Your task to perform on an android device: Go to privacy settings Image 0: 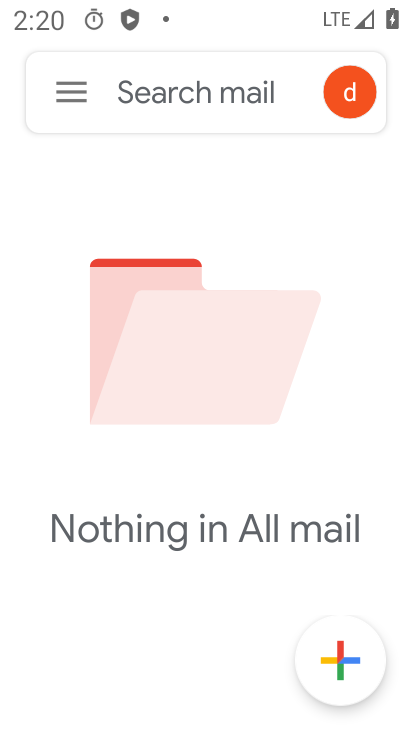
Step 0: press home button
Your task to perform on an android device: Go to privacy settings Image 1: 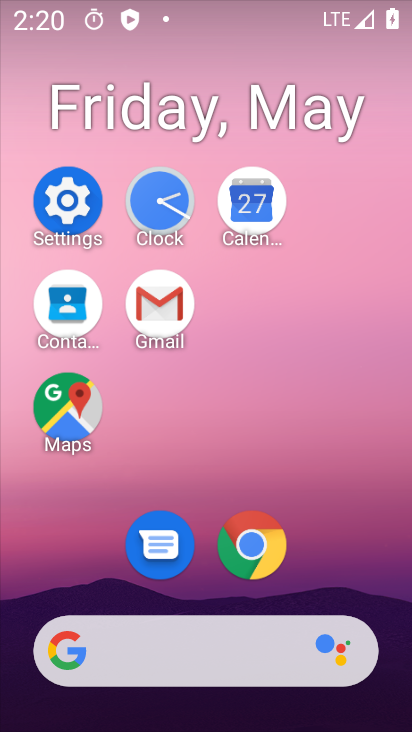
Step 1: click (88, 210)
Your task to perform on an android device: Go to privacy settings Image 2: 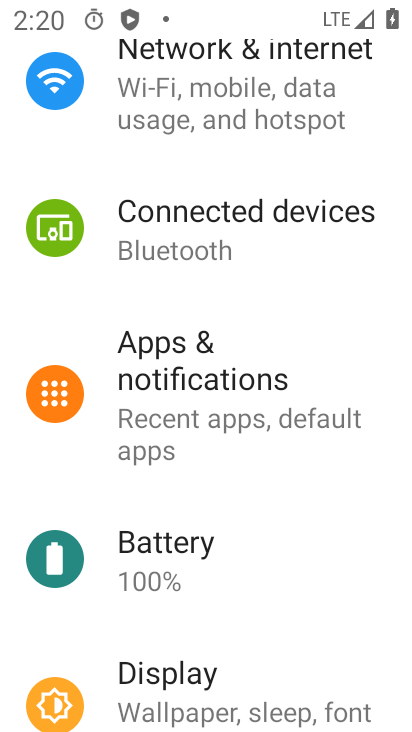
Step 2: drag from (343, 602) to (260, 165)
Your task to perform on an android device: Go to privacy settings Image 3: 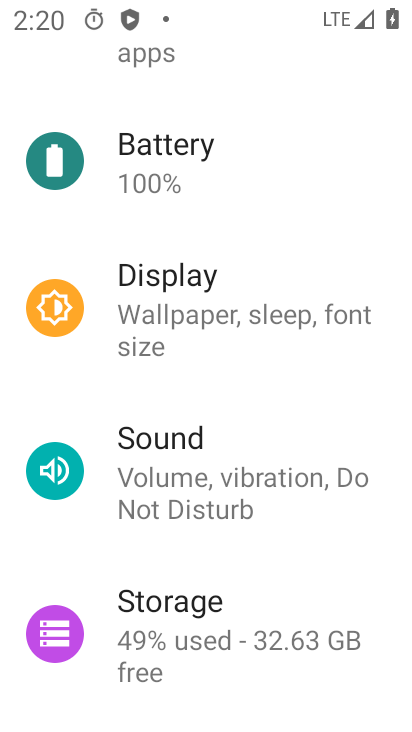
Step 3: drag from (306, 553) to (296, 108)
Your task to perform on an android device: Go to privacy settings Image 4: 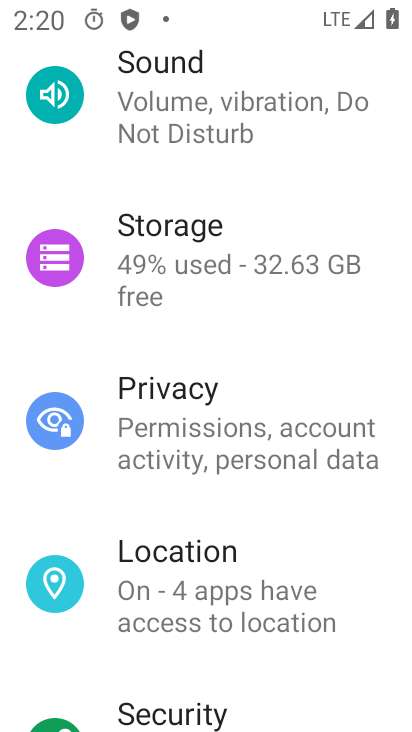
Step 4: click (289, 391)
Your task to perform on an android device: Go to privacy settings Image 5: 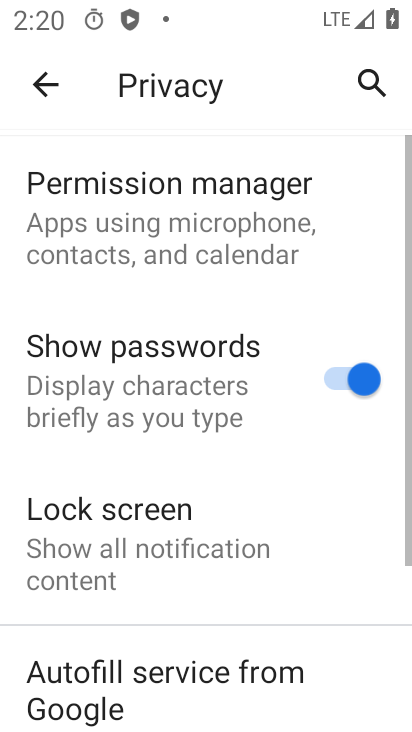
Step 5: task complete